Your task to perform on an android device: change the clock style Image 0: 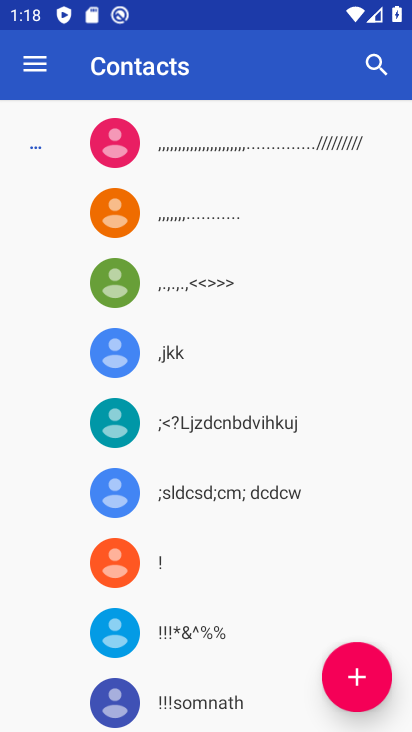
Step 0: press home button
Your task to perform on an android device: change the clock style Image 1: 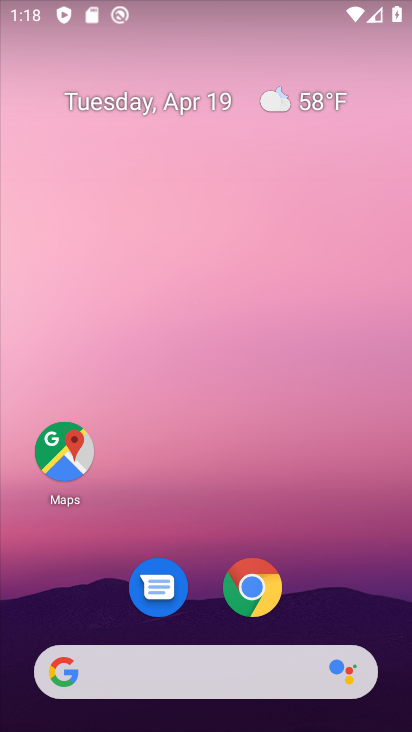
Step 1: drag from (308, 577) to (318, 367)
Your task to perform on an android device: change the clock style Image 2: 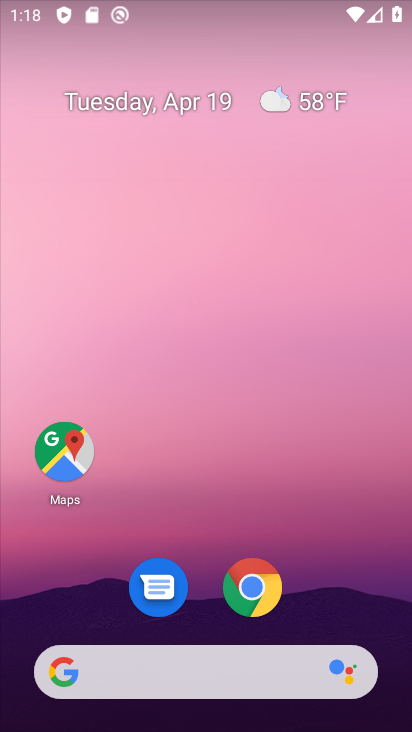
Step 2: drag from (290, 393) to (266, 98)
Your task to perform on an android device: change the clock style Image 3: 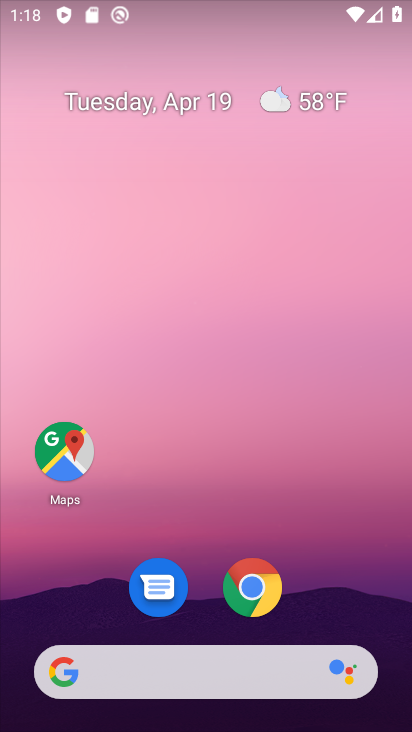
Step 3: drag from (291, 551) to (224, 65)
Your task to perform on an android device: change the clock style Image 4: 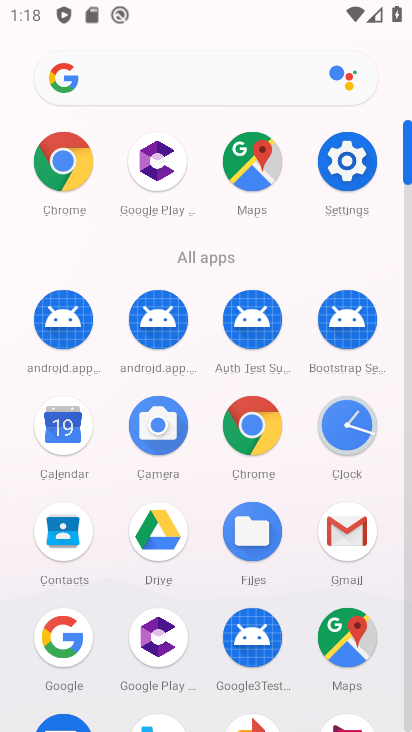
Step 4: click (351, 431)
Your task to perform on an android device: change the clock style Image 5: 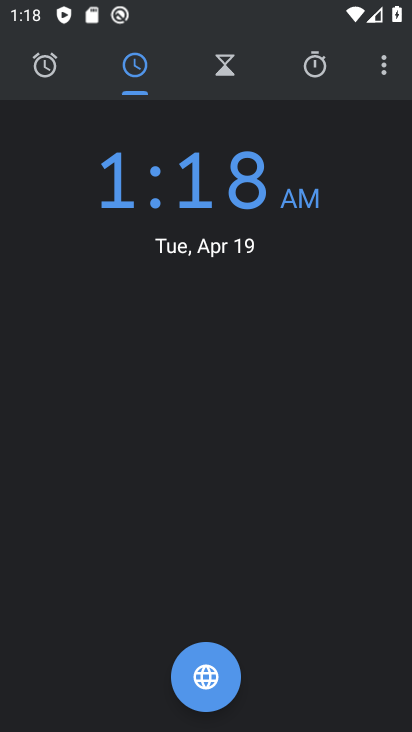
Step 5: click (390, 67)
Your task to perform on an android device: change the clock style Image 6: 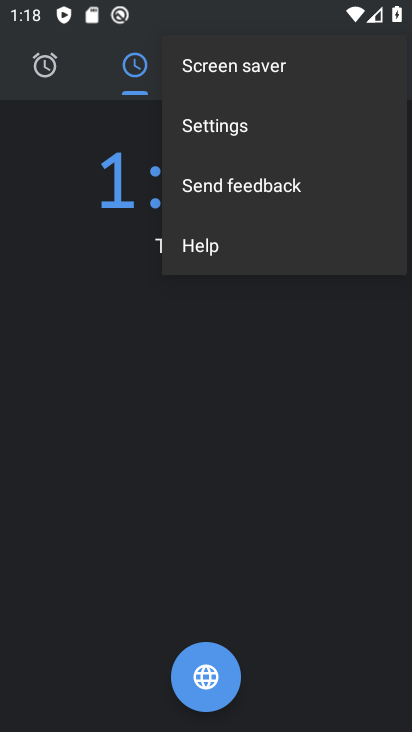
Step 6: click (230, 135)
Your task to perform on an android device: change the clock style Image 7: 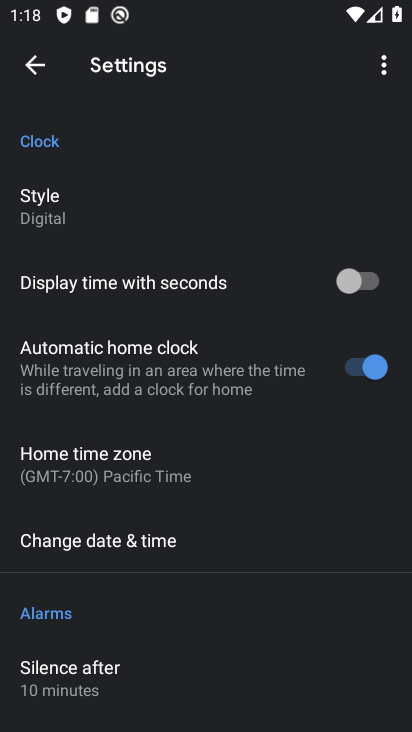
Step 7: click (40, 218)
Your task to perform on an android device: change the clock style Image 8: 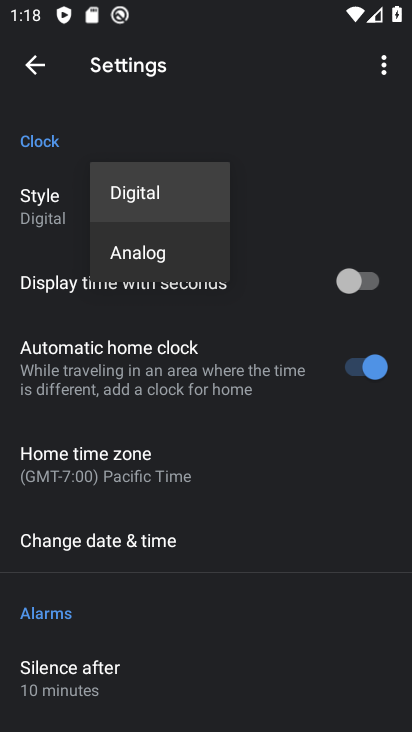
Step 8: click (93, 247)
Your task to perform on an android device: change the clock style Image 9: 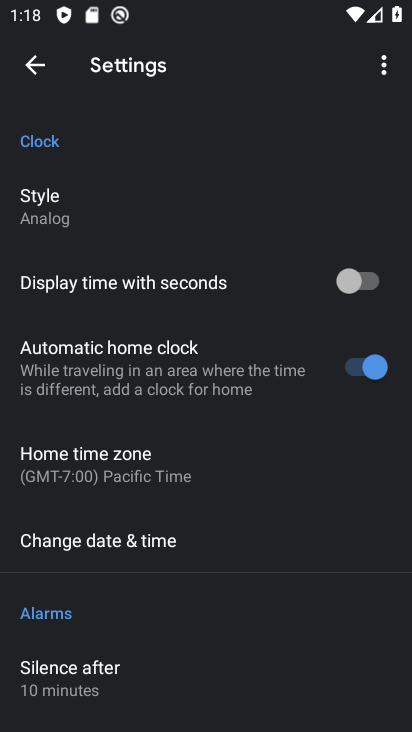
Step 9: task complete